Your task to perform on an android device: Clear the shopping cart on costco.com. Image 0: 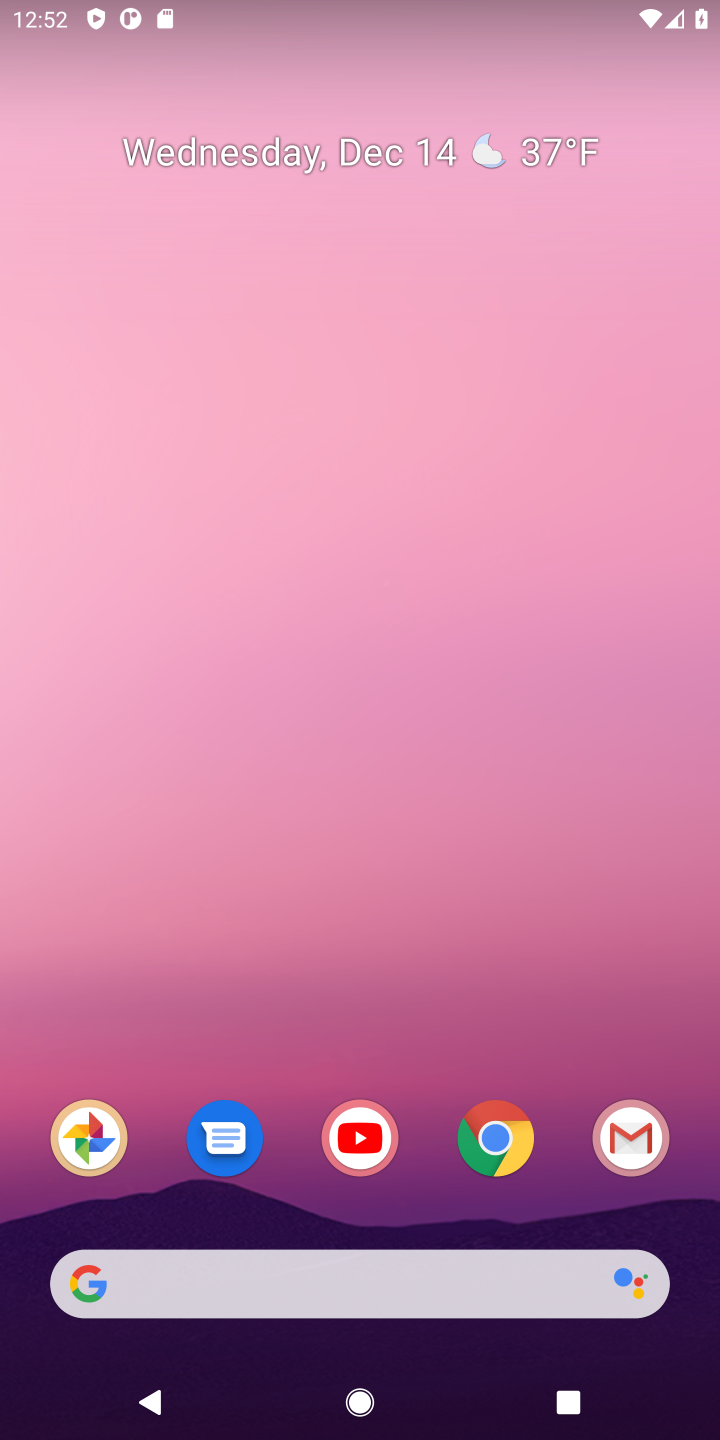
Step 0: click (482, 1137)
Your task to perform on an android device: Clear the shopping cart on costco.com. Image 1: 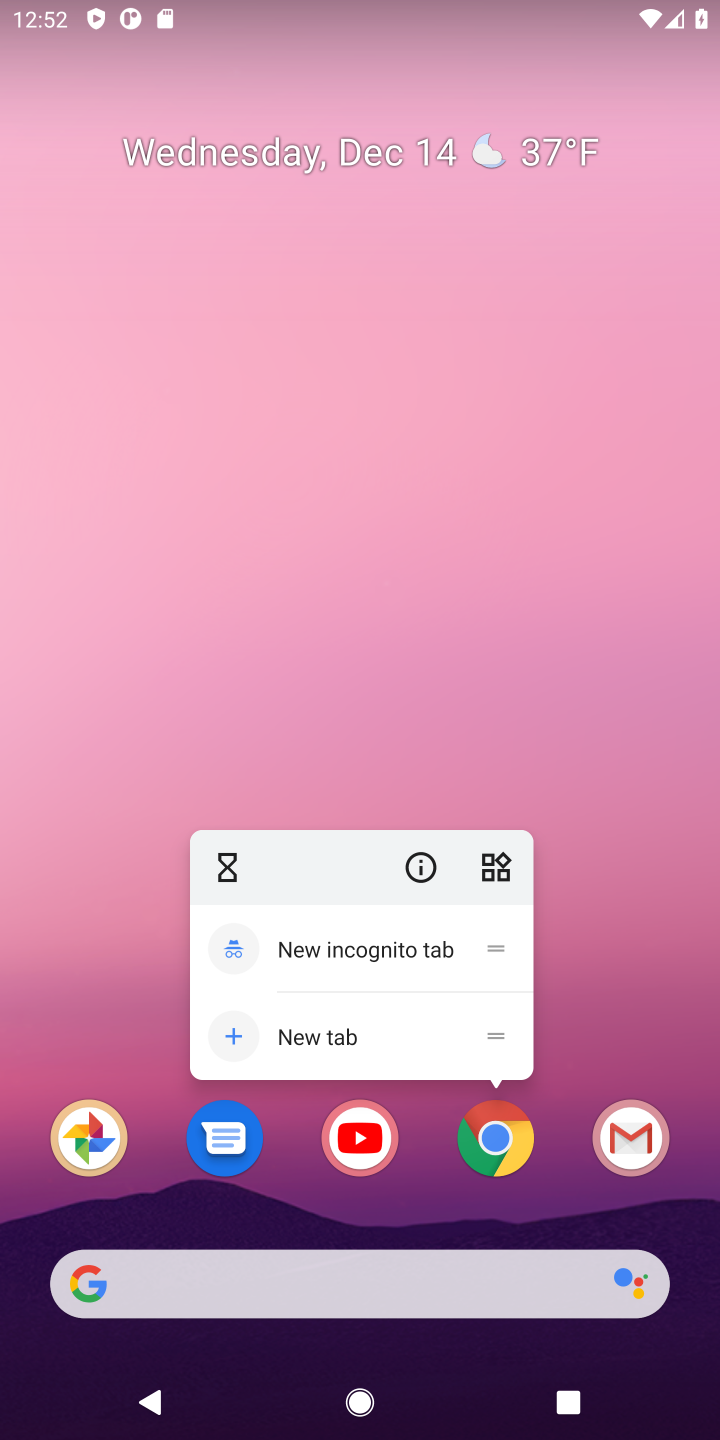
Step 1: click (509, 1141)
Your task to perform on an android device: Clear the shopping cart on costco.com. Image 2: 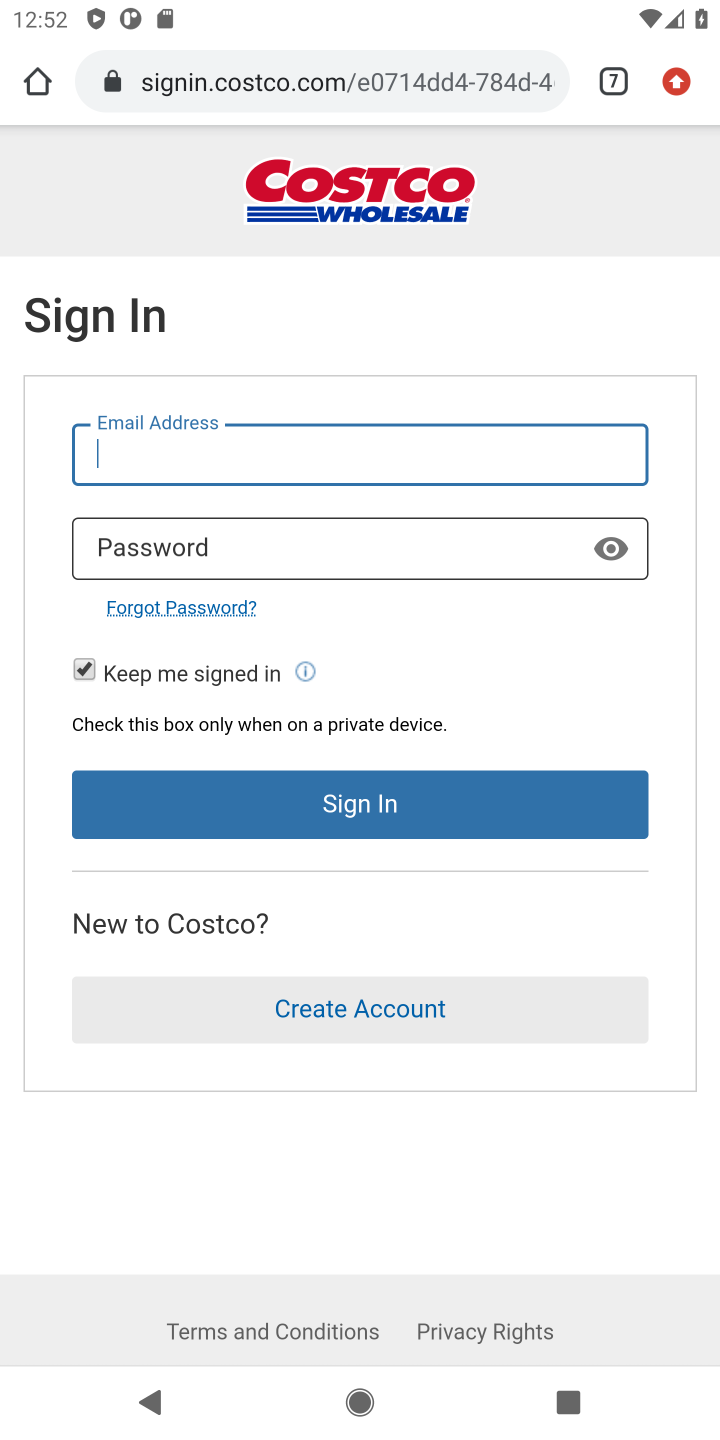
Step 2: press back button
Your task to perform on an android device: Clear the shopping cart on costco.com. Image 3: 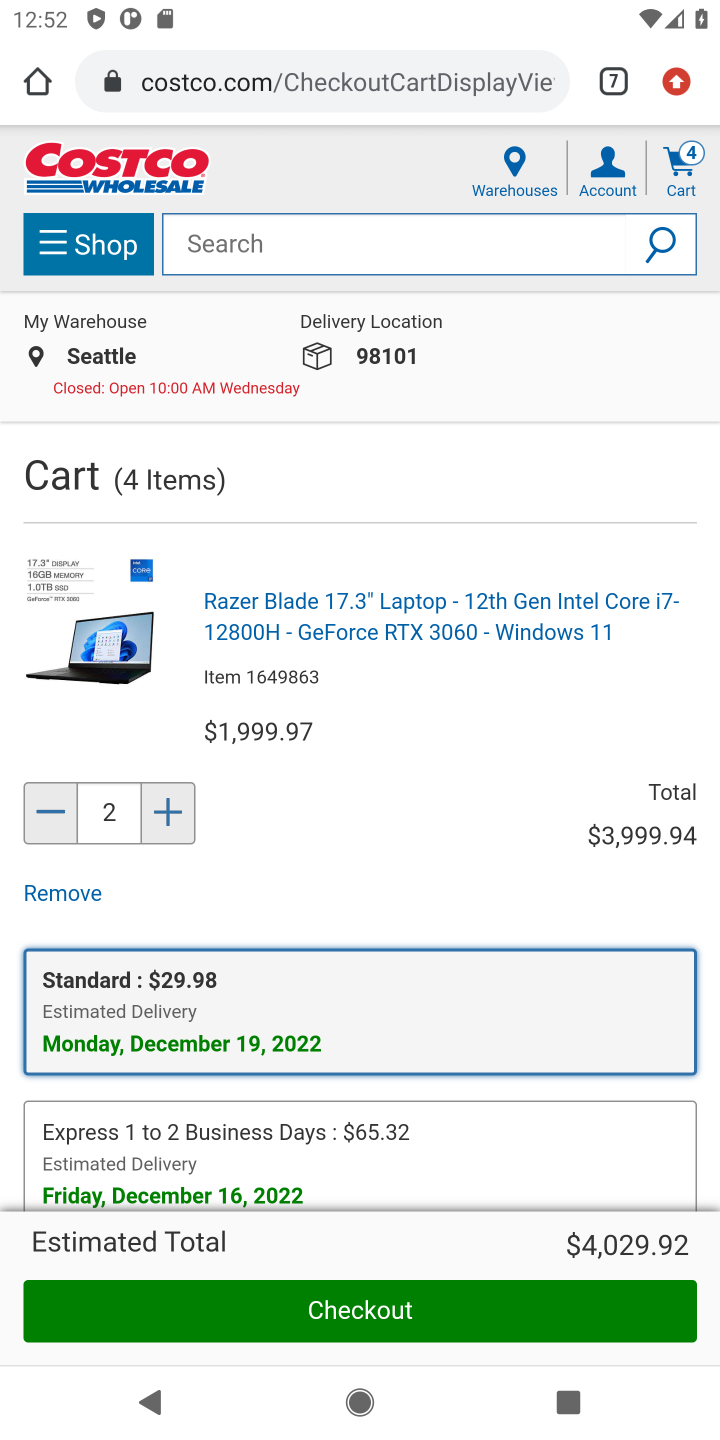
Step 3: click (41, 813)
Your task to perform on an android device: Clear the shopping cart on costco.com. Image 4: 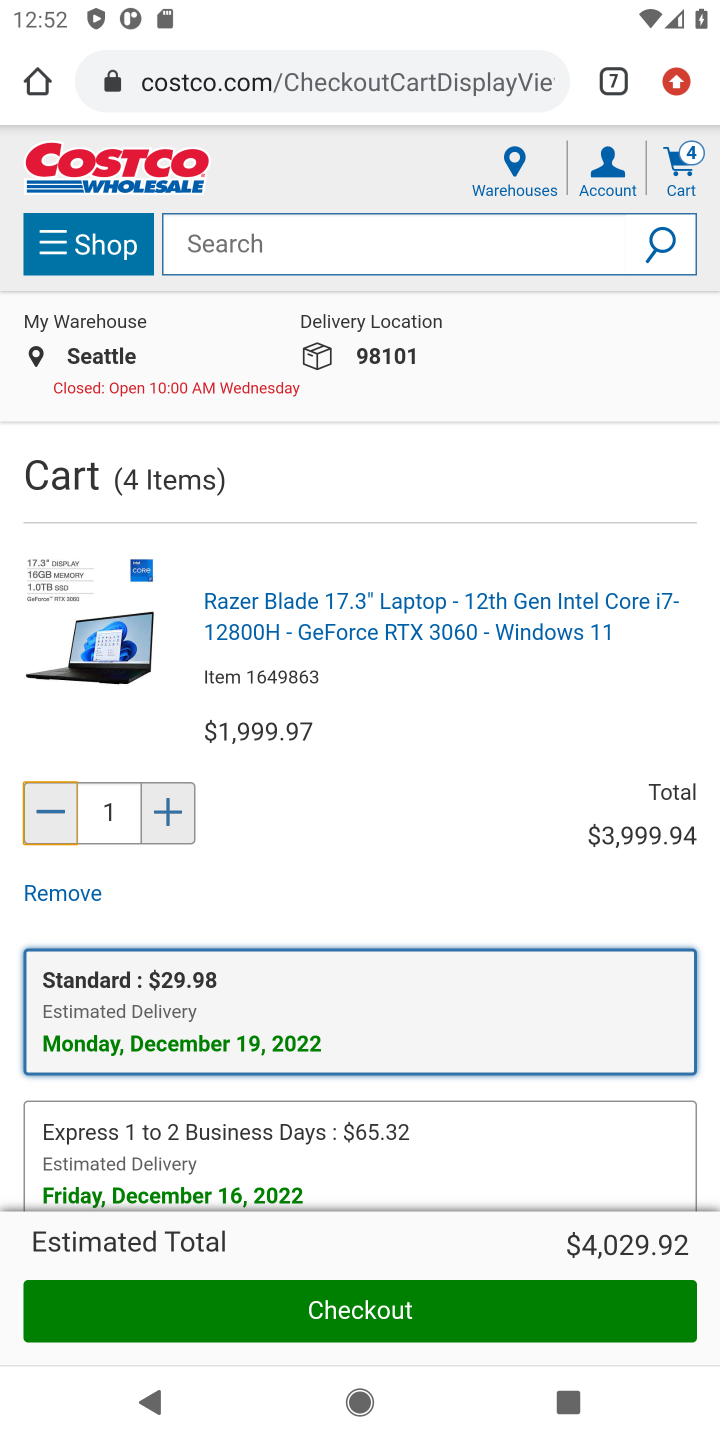
Step 4: click (41, 813)
Your task to perform on an android device: Clear the shopping cart on costco.com. Image 5: 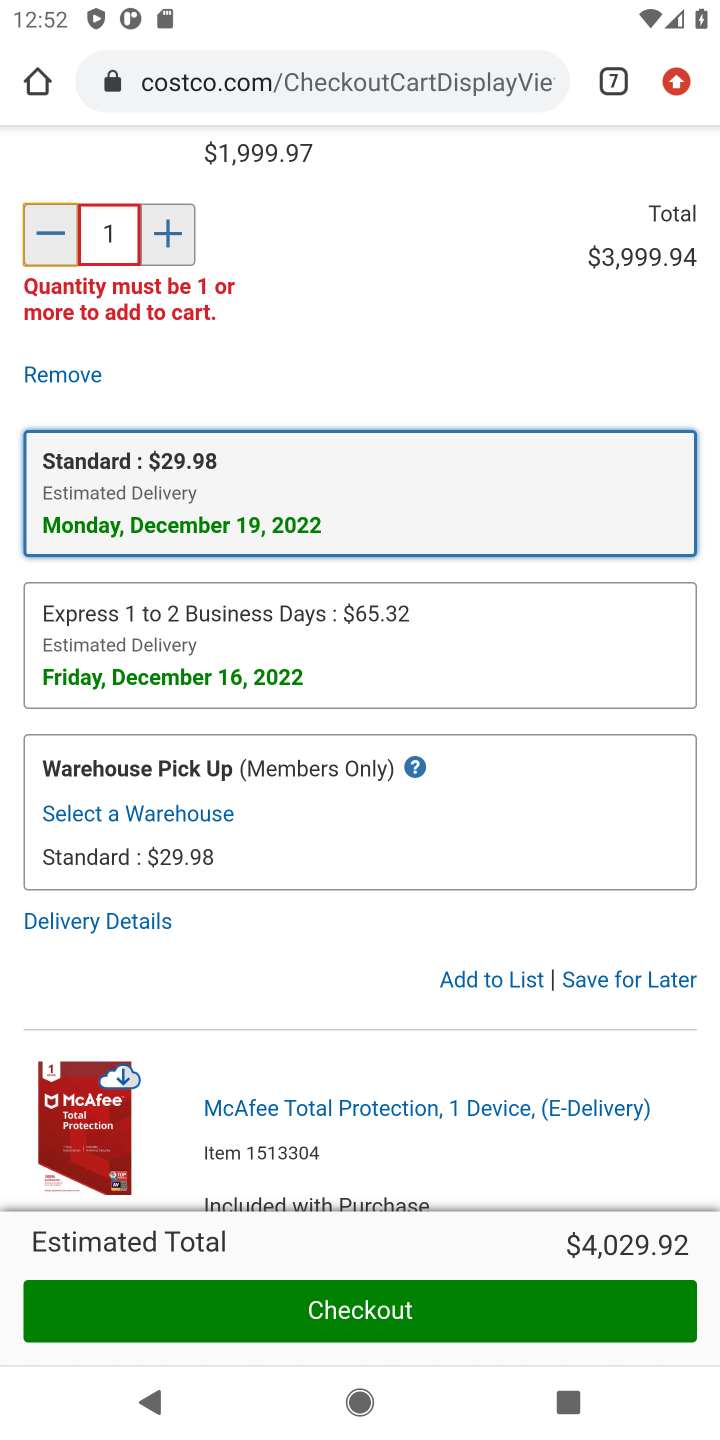
Step 5: click (57, 375)
Your task to perform on an android device: Clear the shopping cart on costco.com. Image 6: 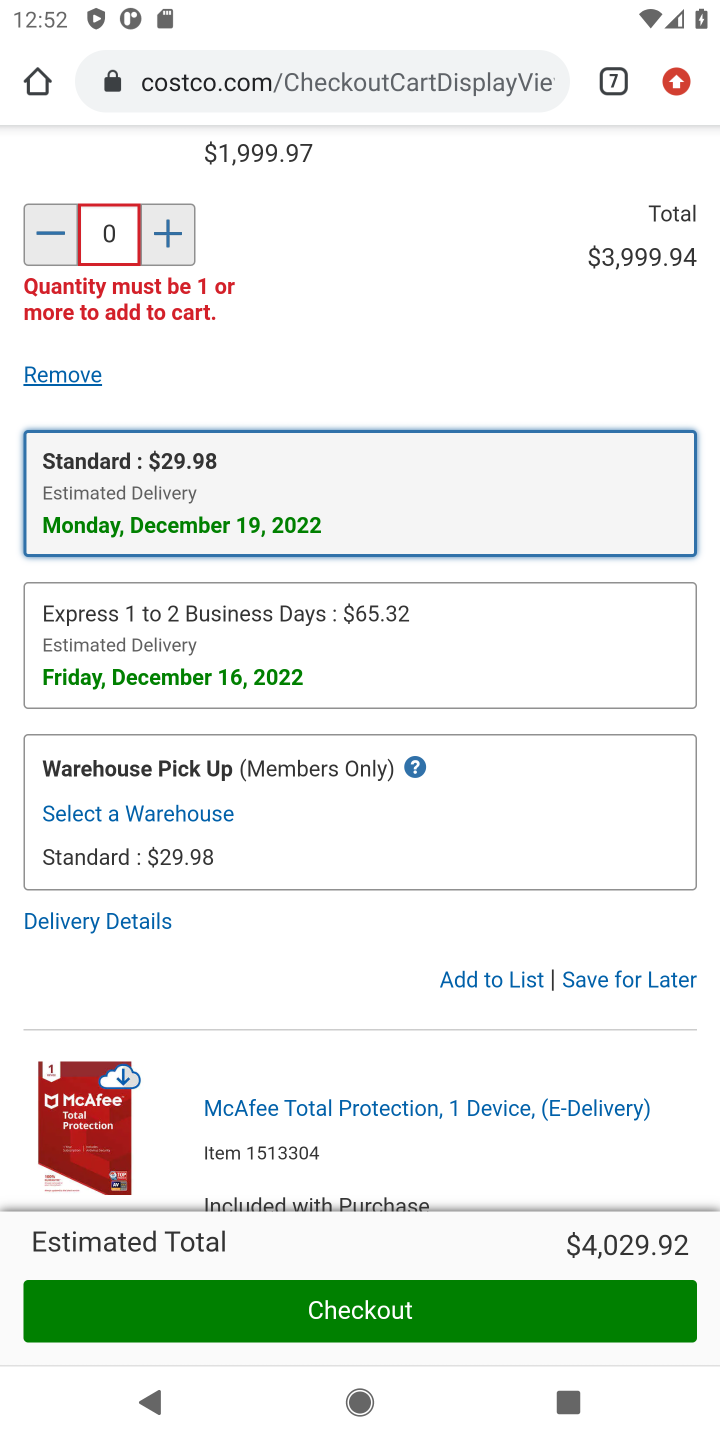
Step 6: click (57, 375)
Your task to perform on an android device: Clear the shopping cart on costco.com. Image 7: 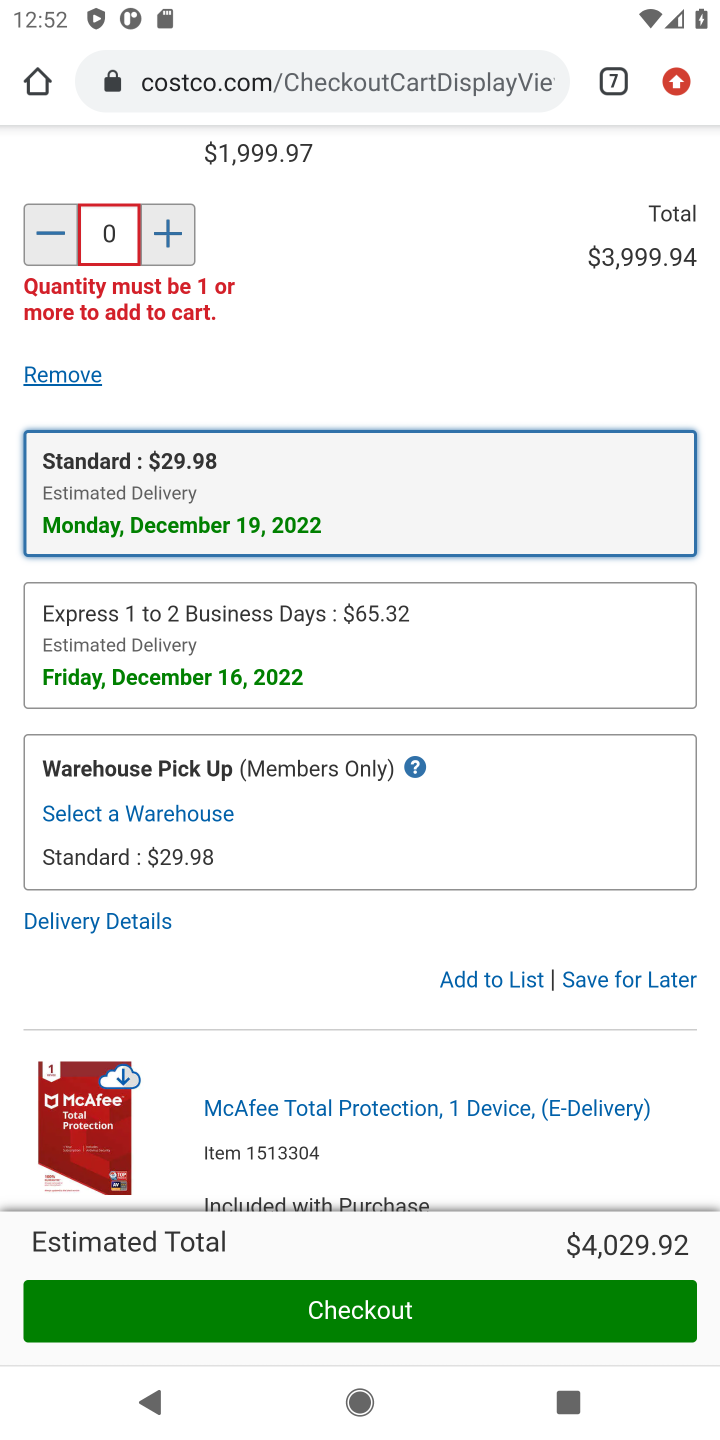
Step 7: click (57, 375)
Your task to perform on an android device: Clear the shopping cart on costco.com. Image 8: 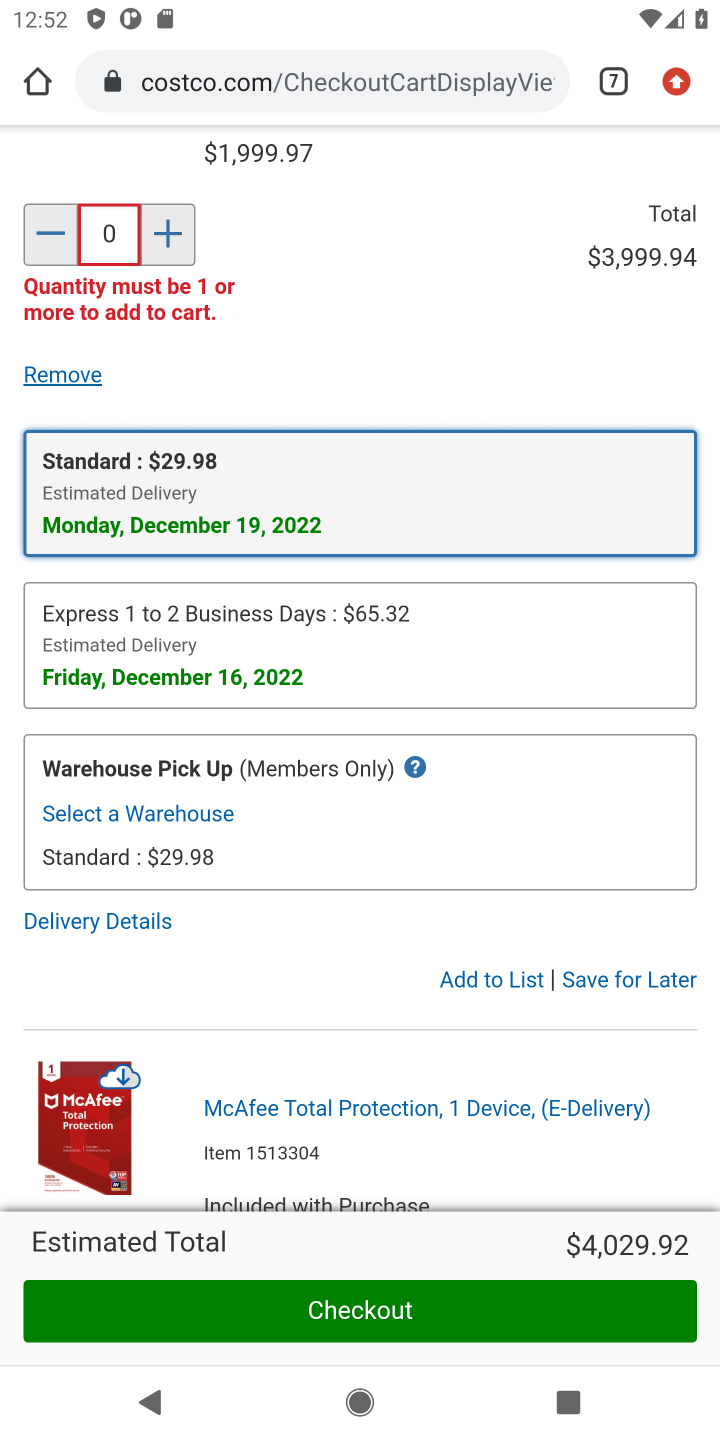
Step 8: click (57, 375)
Your task to perform on an android device: Clear the shopping cart on costco.com. Image 9: 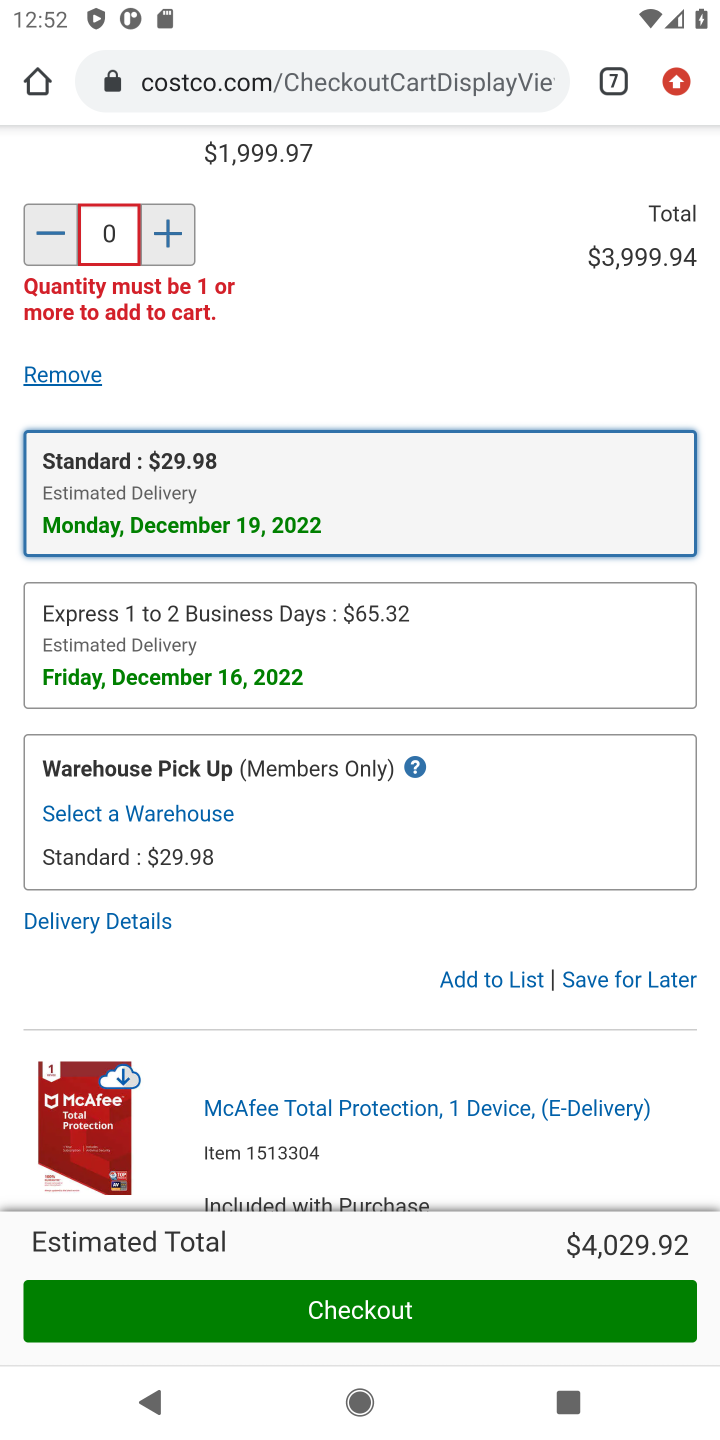
Step 9: click (626, 978)
Your task to perform on an android device: Clear the shopping cart on costco.com. Image 10: 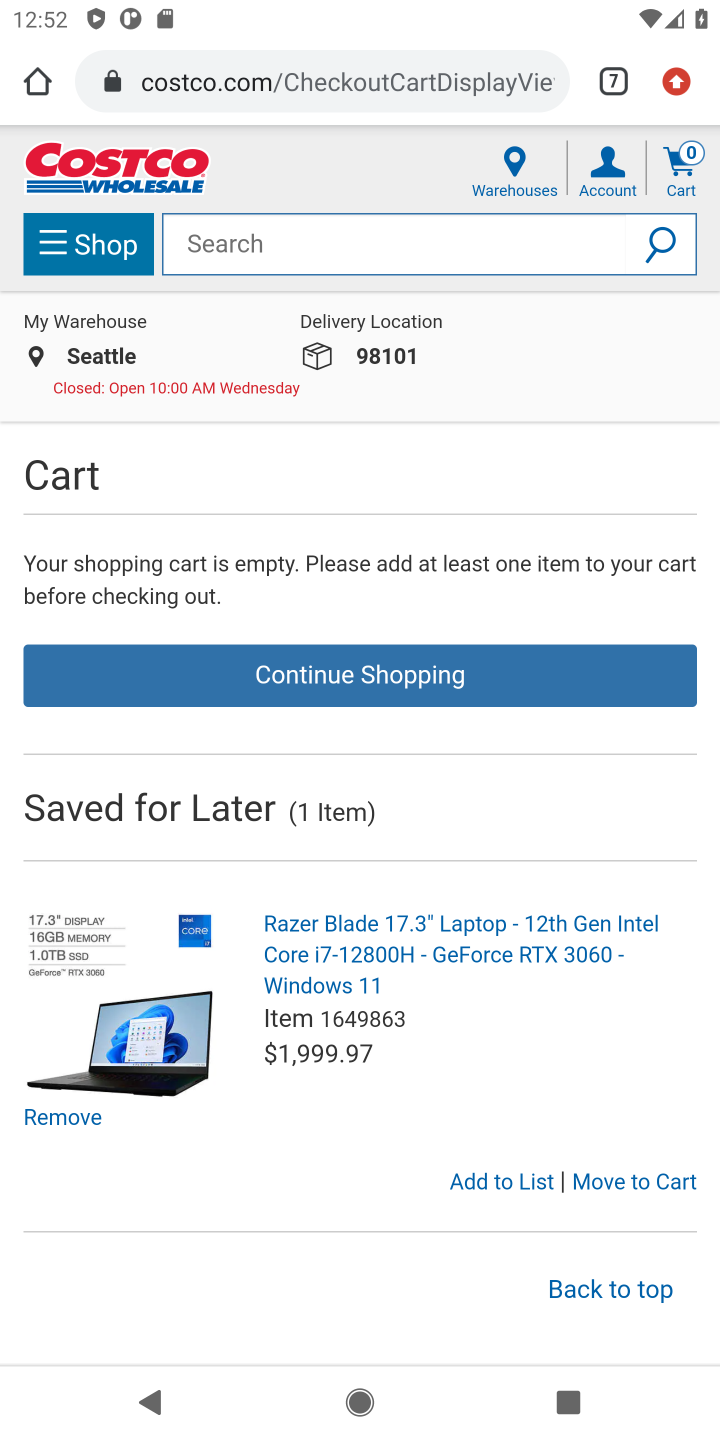
Step 10: task complete